Your task to perform on an android device: turn on translation in the chrome app Image 0: 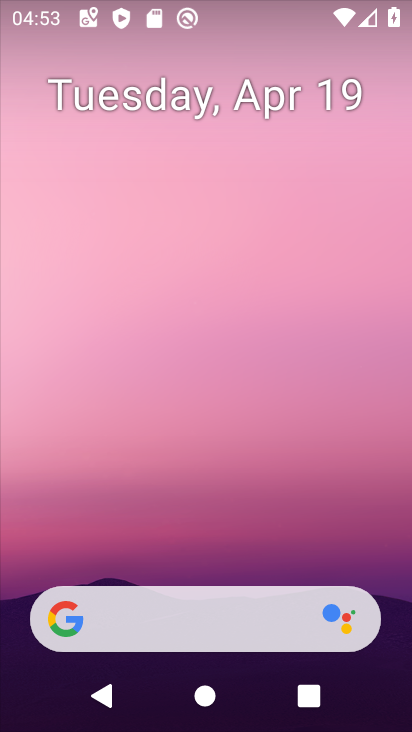
Step 0: drag from (189, 556) to (214, 149)
Your task to perform on an android device: turn on translation in the chrome app Image 1: 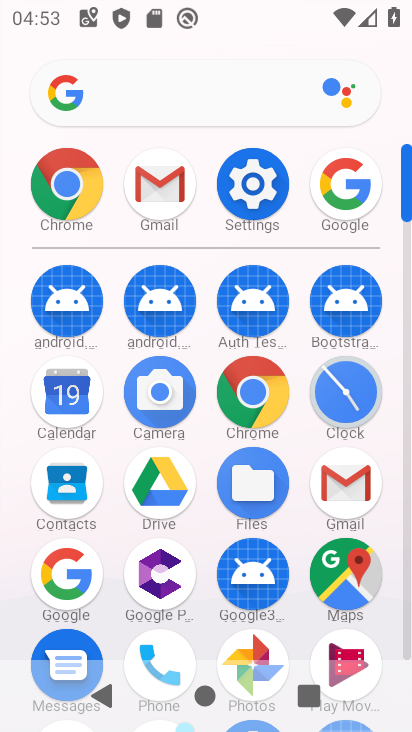
Step 1: click (67, 189)
Your task to perform on an android device: turn on translation in the chrome app Image 2: 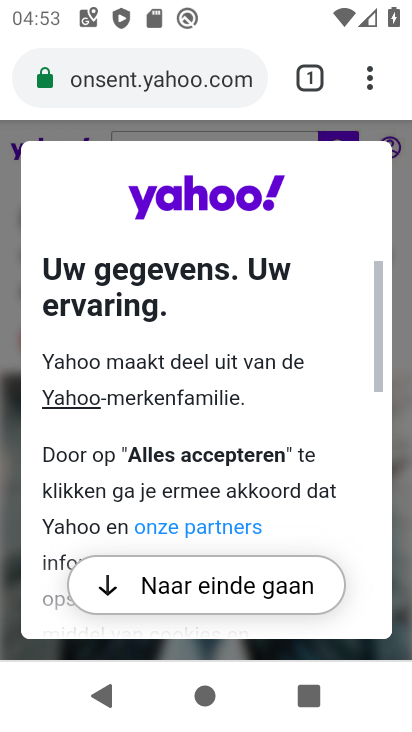
Step 2: click (379, 80)
Your task to perform on an android device: turn on translation in the chrome app Image 3: 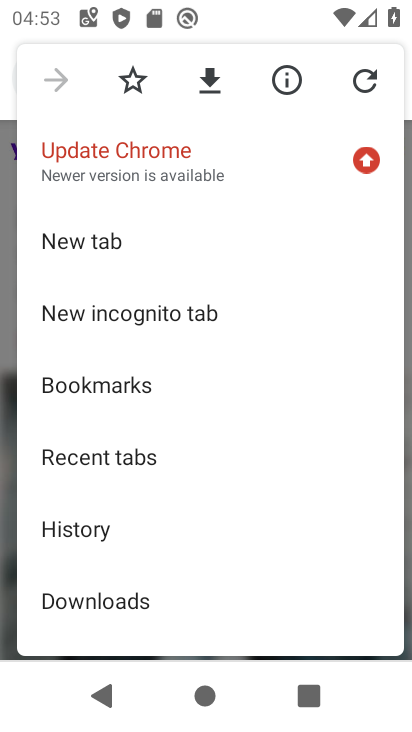
Step 3: drag from (162, 462) to (158, 352)
Your task to perform on an android device: turn on translation in the chrome app Image 4: 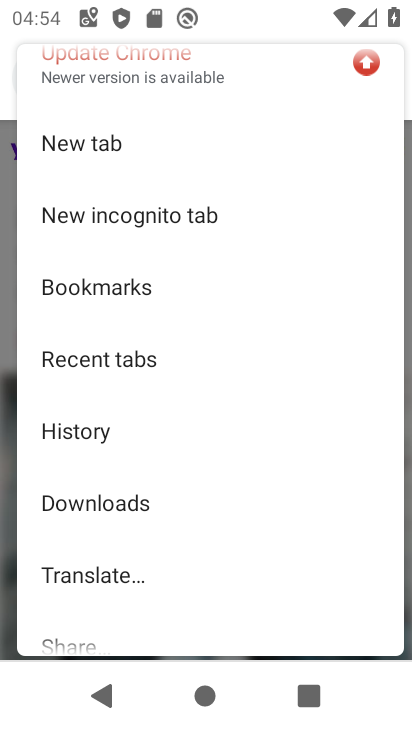
Step 4: drag from (170, 459) to (190, 382)
Your task to perform on an android device: turn on translation in the chrome app Image 5: 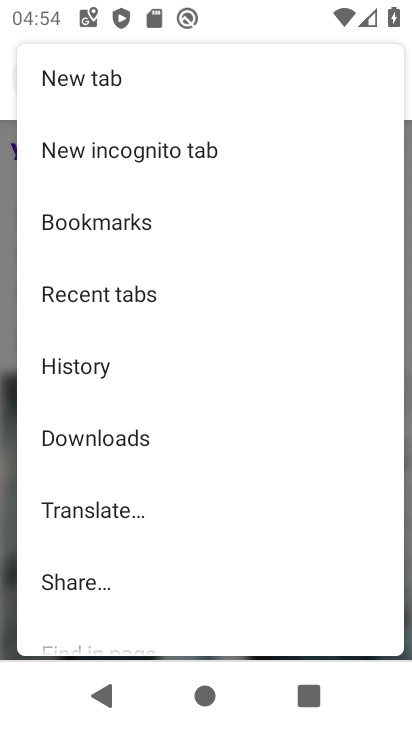
Step 5: drag from (160, 472) to (167, 393)
Your task to perform on an android device: turn on translation in the chrome app Image 6: 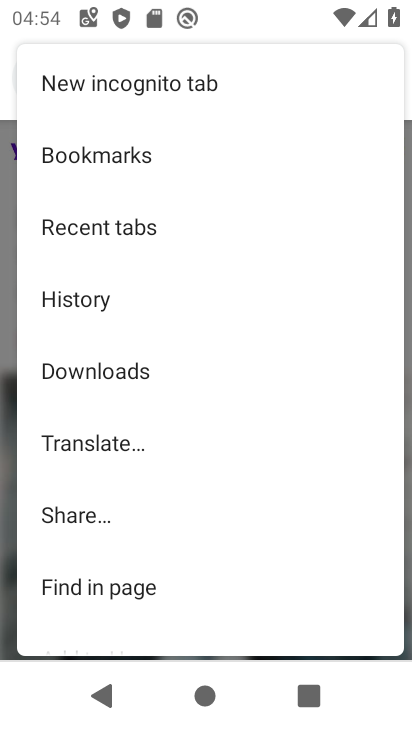
Step 6: drag from (137, 470) to (150, 408)
Your task to perform on an android device: turn on translation in the chrome app Image 7: 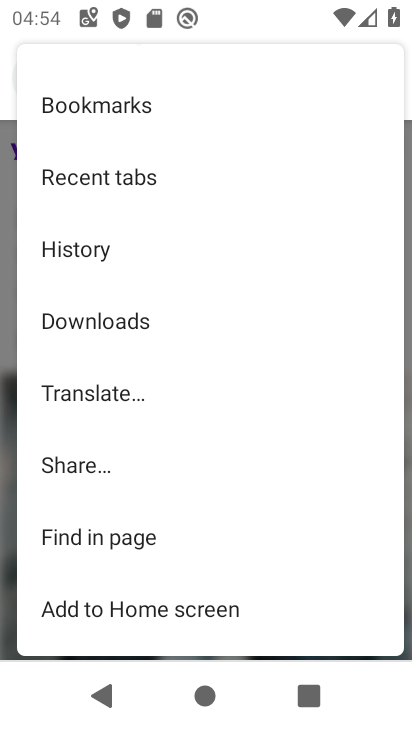
Step 7: drag from (145, 517) to (164, 438)
Your task to perform on an android device: turn on translation in the chrome app Image 8: 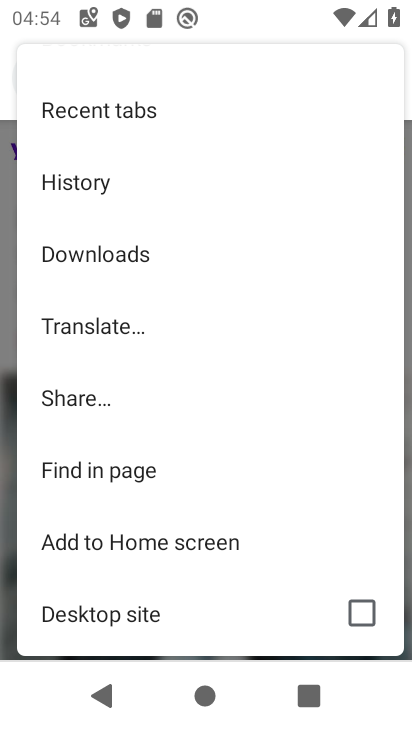
Step 8: drag from (131, 502) to (157, 387)
Your task to perform on an android device: turn on translation in the chrome app Image 9: 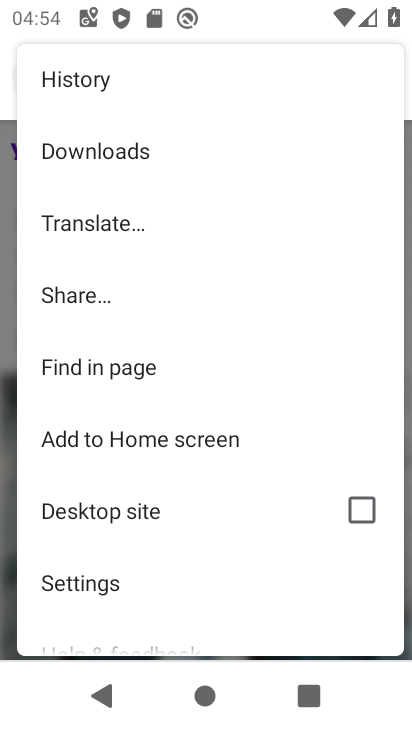
Step 9: drag from (119, 467) to (155, 385)
Your task to perform on an android device: turn on translation in the chrome app Image 10: 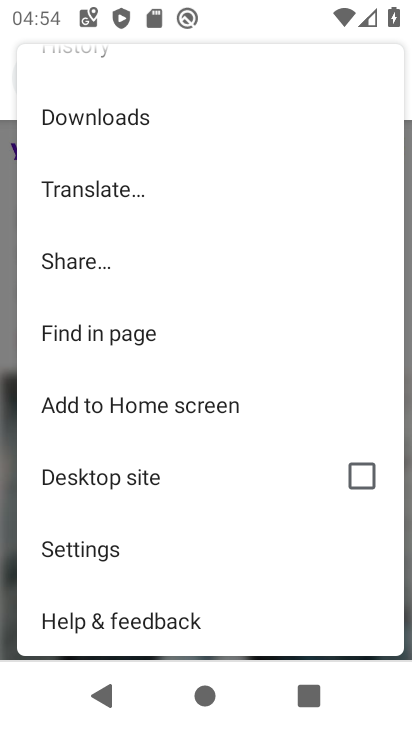
Step 10: click (93, 545)
Your task to perform on an android device: turn on translation in the chrome app Image 11: 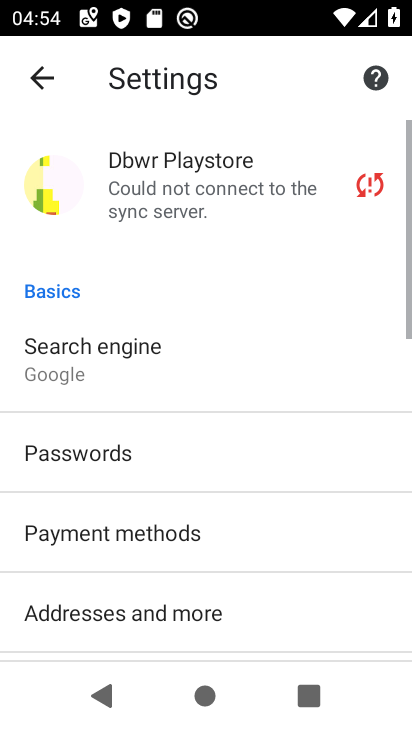
Step 11: drag from (93, 545) to (122, 462)
Your task to perform on an android device: turn on translation in the chrome app Image 12: 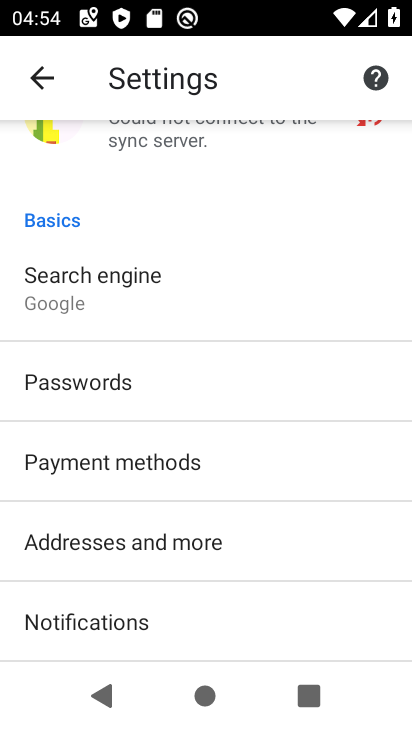
Step 12: drag from (119, 549) to (128, 464)
Your task to perform on an android device: turn on translation in the chrome app Image 13: 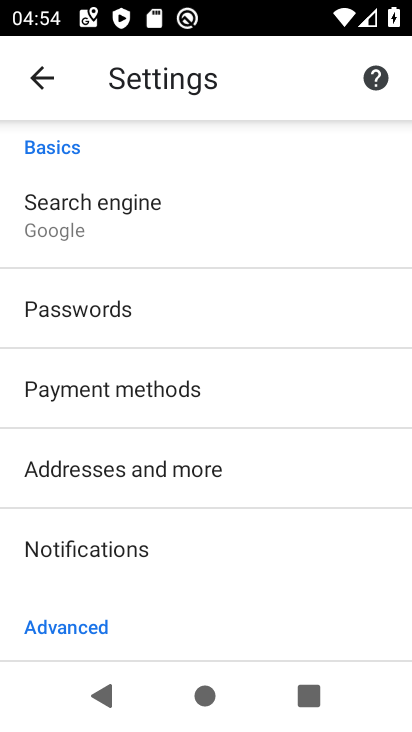
Step 13: drag from (131, 548) to (149, 462)
Your task to perform on an android device: turn on translation in the chrome app Image 14: 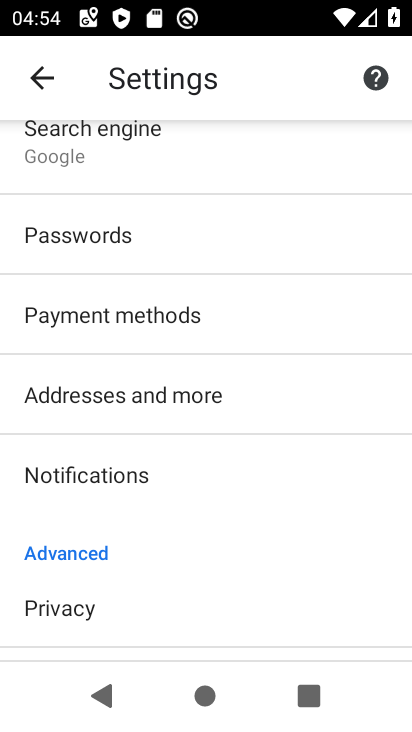
Step 14: drag from (156, 525) to (159, 451)
Your task to perform on an android device: turn on translation in the chrome app Image 15: 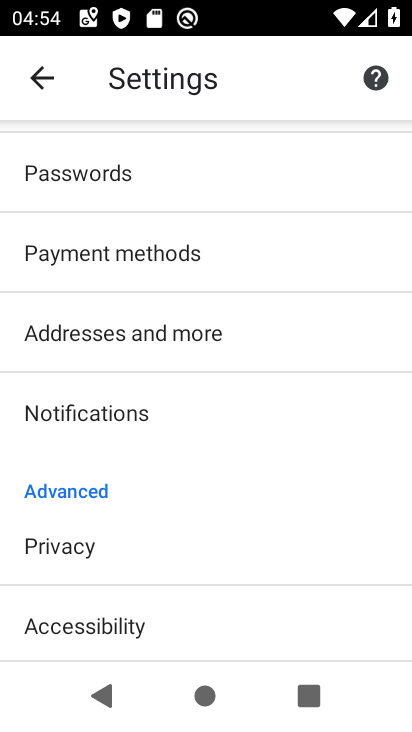
Step 15: drag from (123, 533) to (148, 435)
Your task to perform on an android device: turn on translation in the chrome app Image 16: 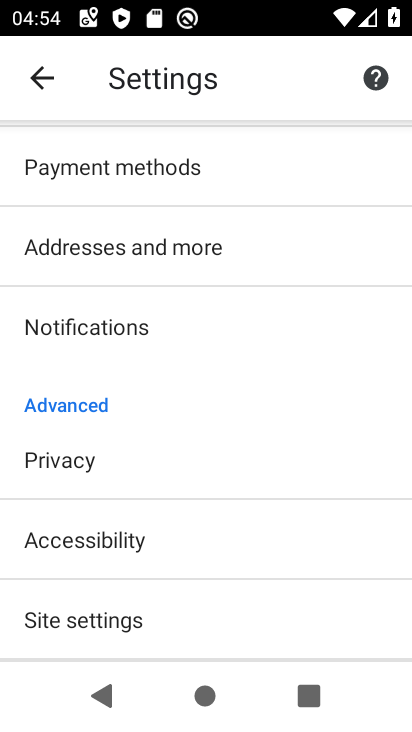
Step 16: drag from (134, 547) to (165, 470)
Your task to perform on an android device: turn on translation in the chrome app Image 17: 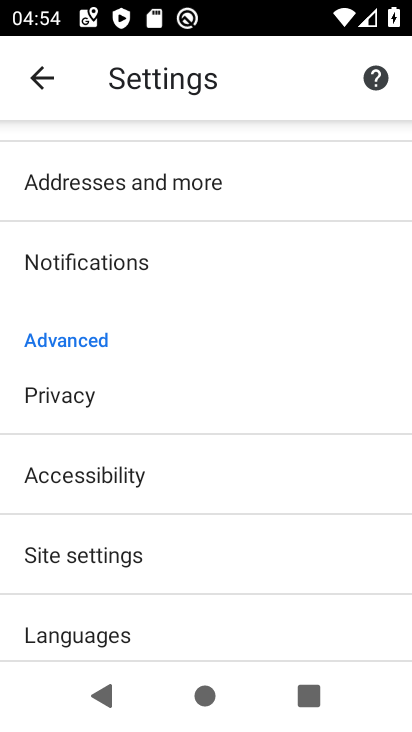
Step 17: click (82, 630)
Your task to perform on an android device: turn on translation in the chrome app Image 18: 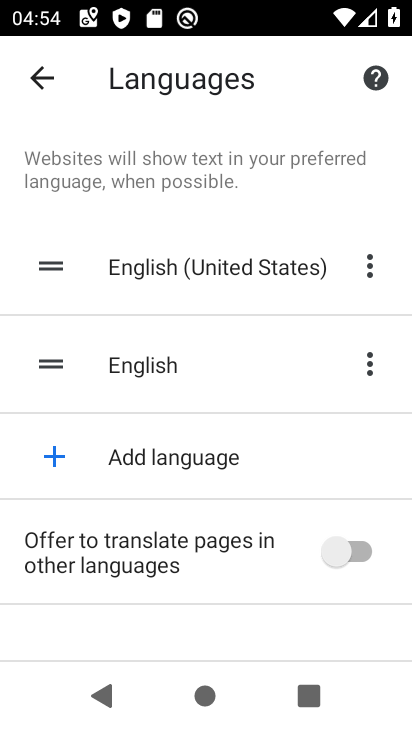
Step 18: click (358, 542)
Your task to perform on an android device: turn on translation in the chrome app Image 19: 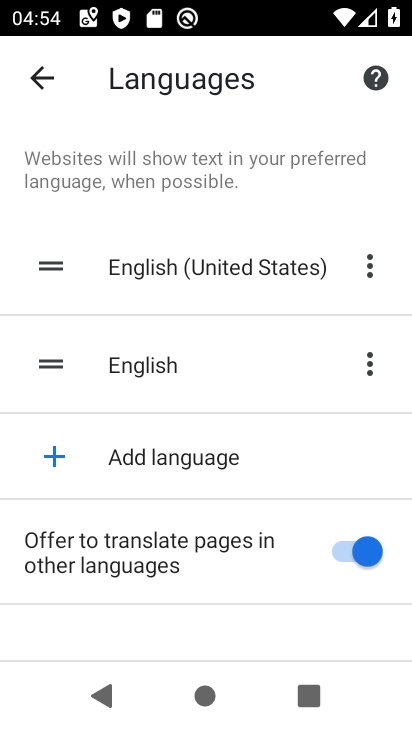
Step 19: task complete